Your task to perform on an android device: turn on priority inbox in the gmail app Image 0: 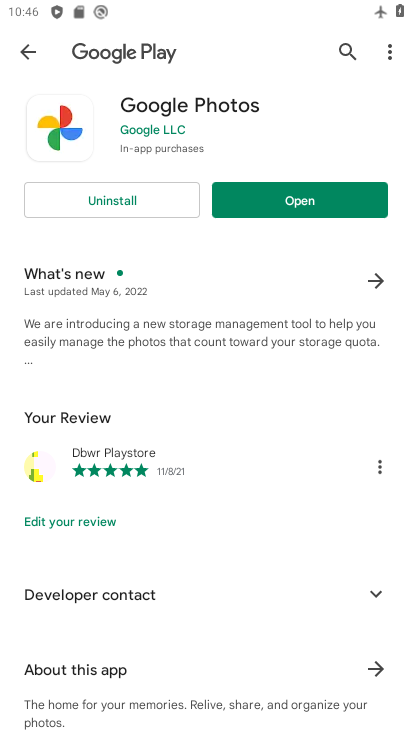
Step 0: press home button
Your task to perform on an android device: turn on priority inbox in the gmail app Image 1: 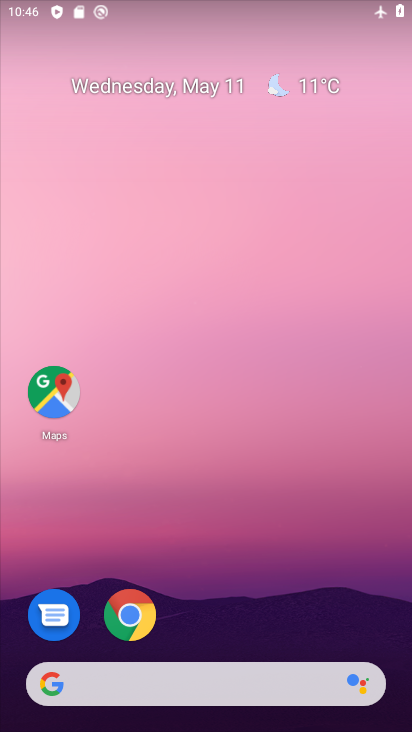
Step 1: drag from (321, 469) to (302, 116)
Your task to perform on an android device: turn on priority inbox in the gmail app Image 2: 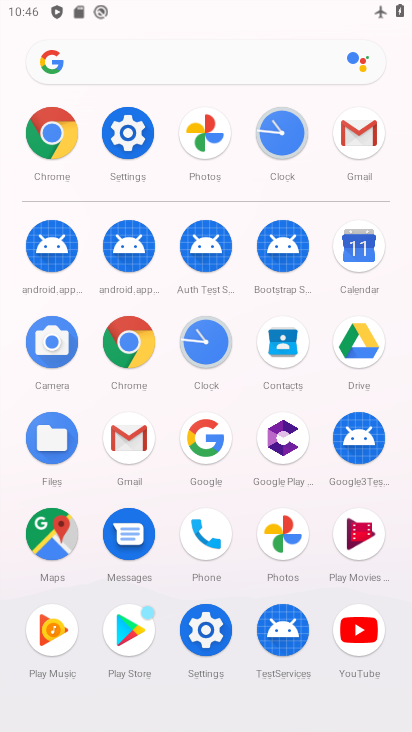
Step 2: click (360, 131)
Your task to perform on an android device: turn on priority inbox in the gmail app Image 3: 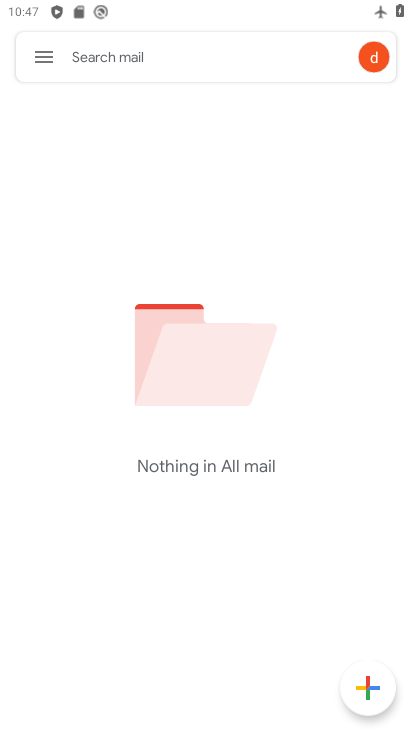
Step 3: click (36, 63)
Your task to perform on an android device: turn on priority inbox in the gmail app Image 4: 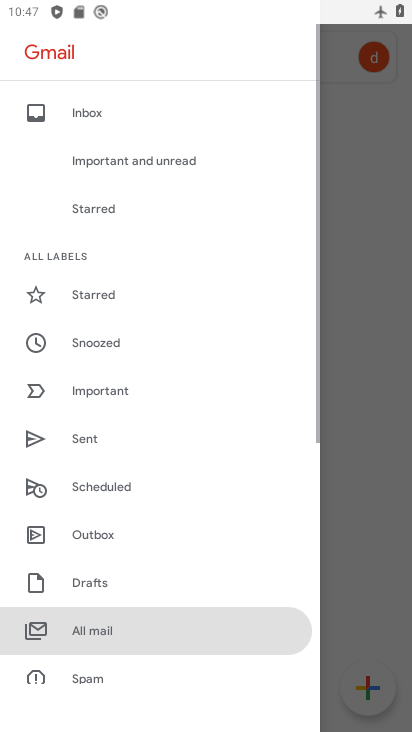
Step 4: drag from (150, 585) to (224, 47)
Your task to perform on an android device: turn on priority inbox in the gmail app Image 5: 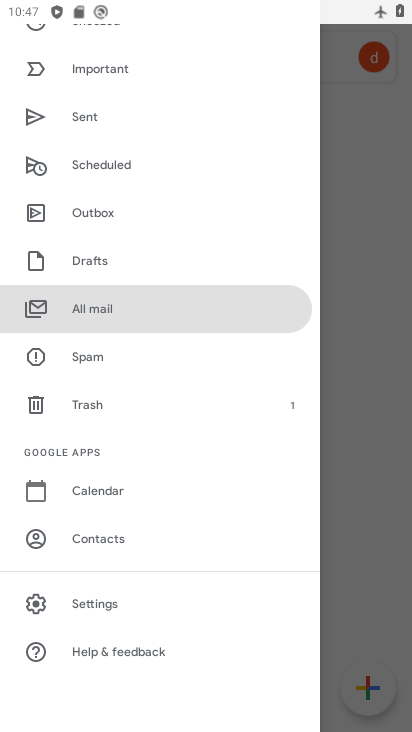
Step 5: click (117, 609)
Your task to perform on an android device: turn on priority inbox in the gmail app Image 6: 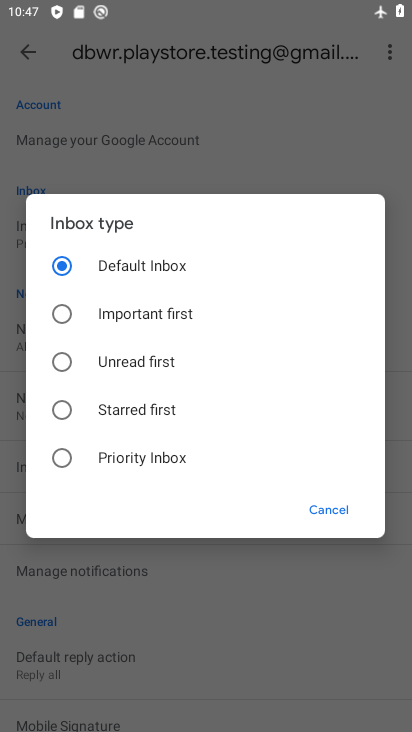
Step 6: task complete